Your task to perform on an android device: Open eBay Image 0: 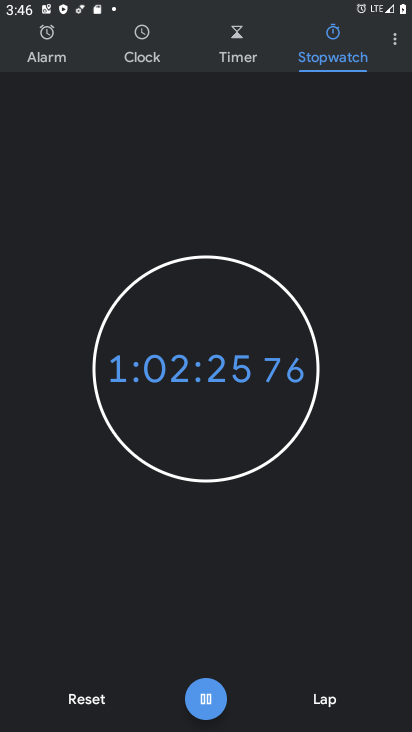
Step 0: press home button
Your task to perform on an android device: Open eBay Image 1: 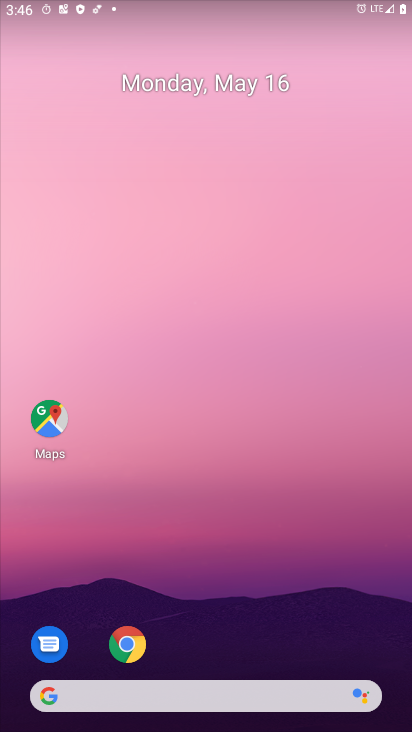
Step 1: drag from (206, 665) to (205, 207)
Your task to perform on an android device: Open eBay Image 2: 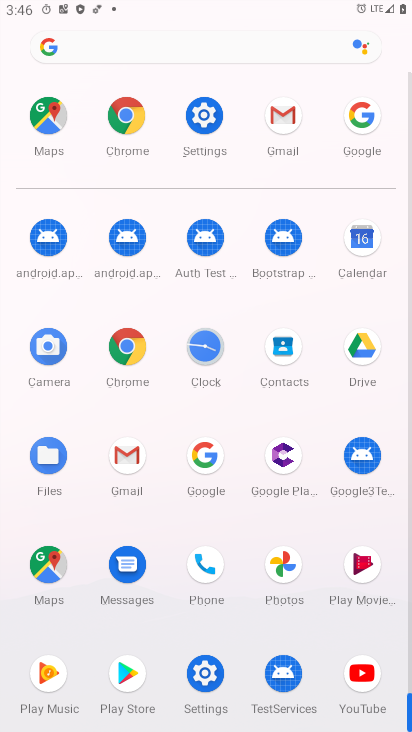
Step 2: click (140, 362)
Your task to perform on an android device: Open eBay Image 3: 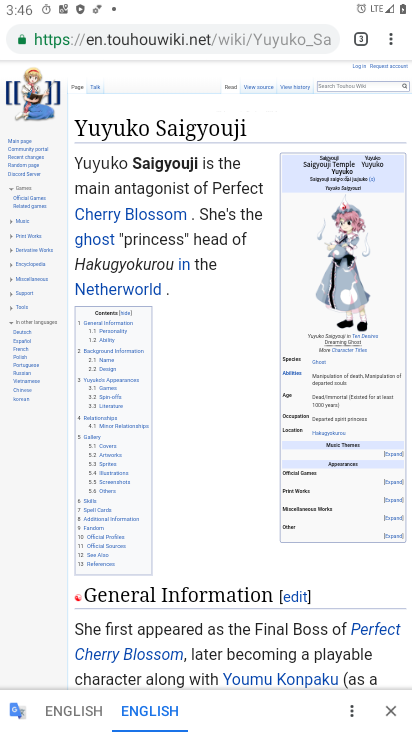
Step 3: click (208, 33)
Your task to perform on an android device: Open eBay Image 4: 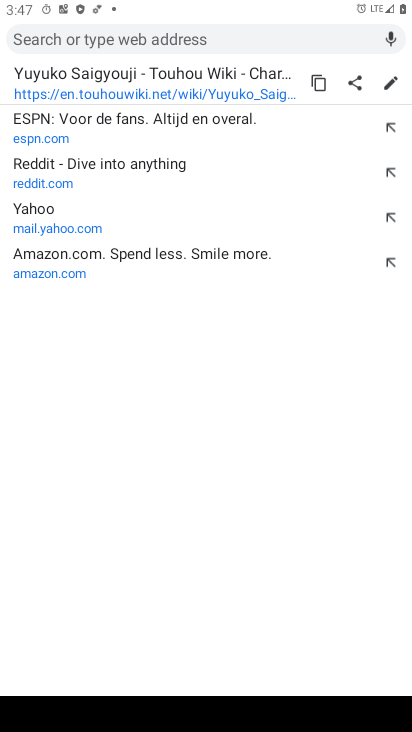
Step 4: type "ebay"
Your task to perform on an android device: Open eBay Image 5: 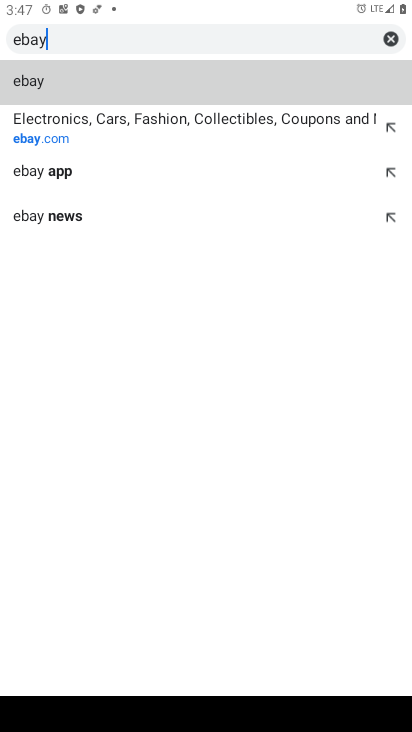
Step 5: click (131, 144)
Your task to perform on an android device: Open eBay Image 6: 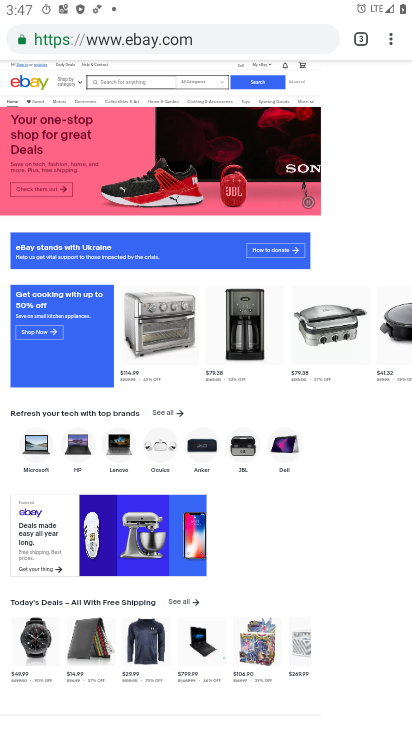
Step 6: task complete